Your task to perform on an android device: Go to location settings Image 0: 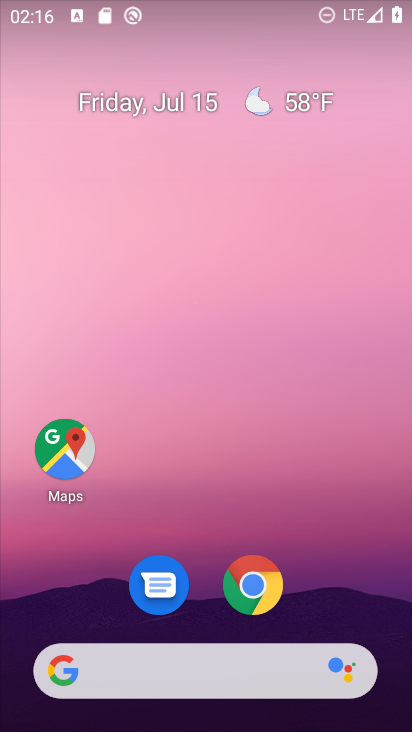
Step 0: drag from (226, 478) to (233, 22)
Your task to perform on an android device: Go to location settings Image 1: 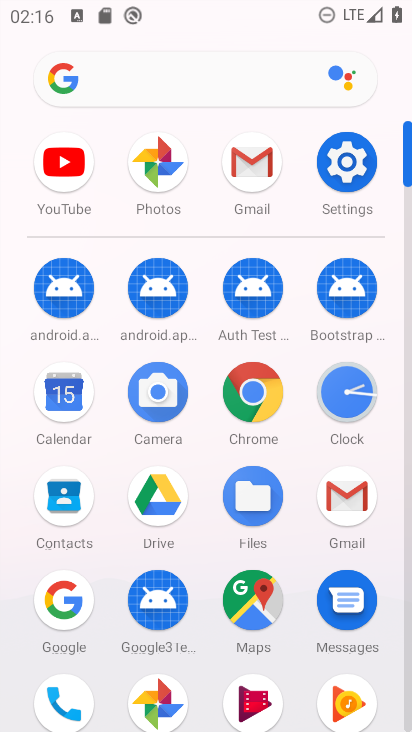
Step 1: click (368, 163)
Your task to perform on an android device: Go to location settings Image 2: 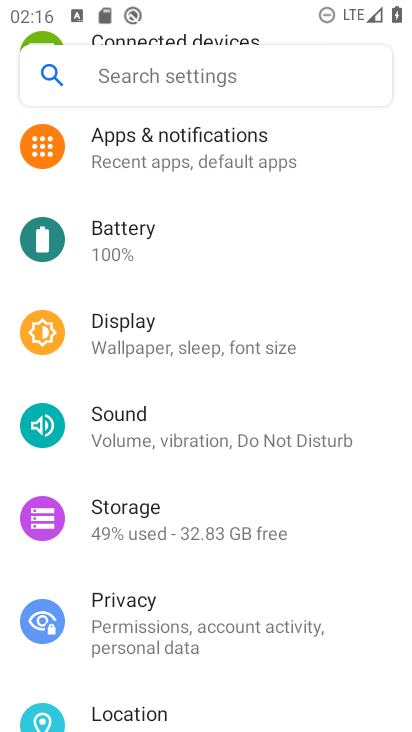
Step 2: drag from (214, 572) to (236, 174)
Your task to perform on an android device: Go to location settings Image 3: 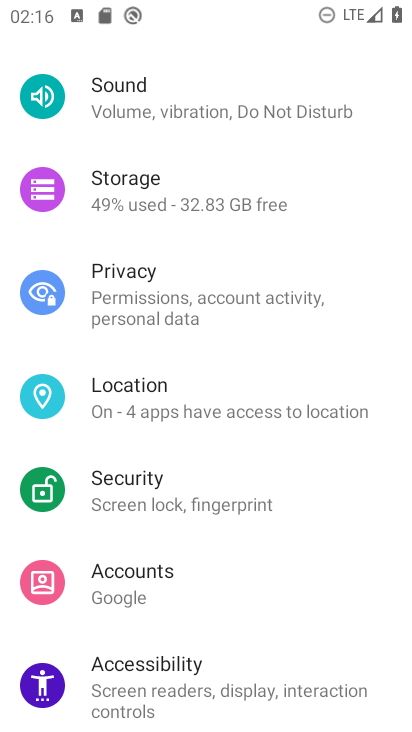
Step 3: click (227, 396)
Your task to perform on an android device: Go to location settings Image 4: 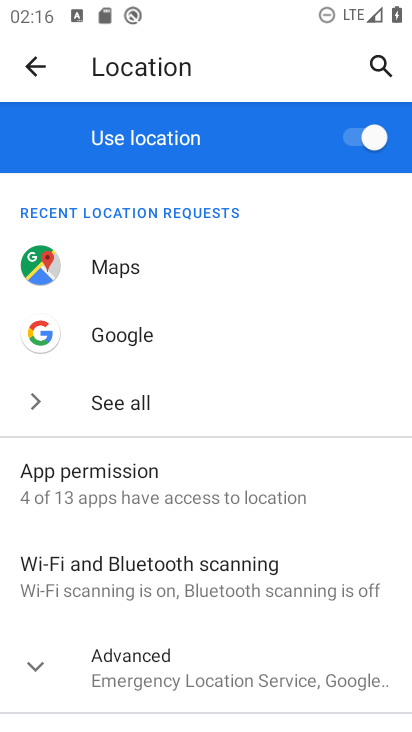
Step 4: task complete